Your task to perform on an android device: Do I have any events tomorrow? Image 0: 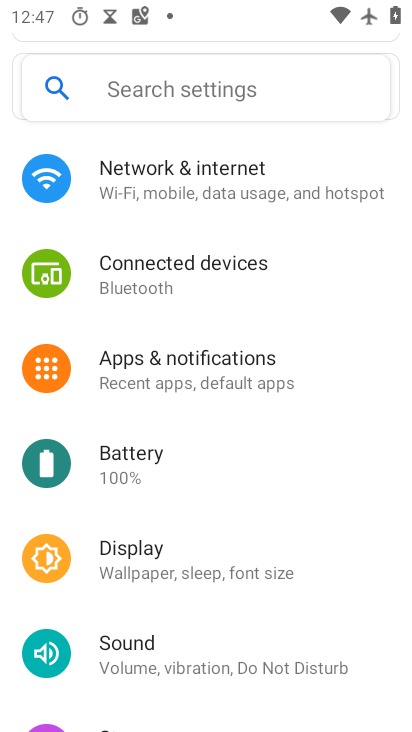
Step 0: press home button
Your task to perform on an android device: Do I have any events tomorrow? Image 1: 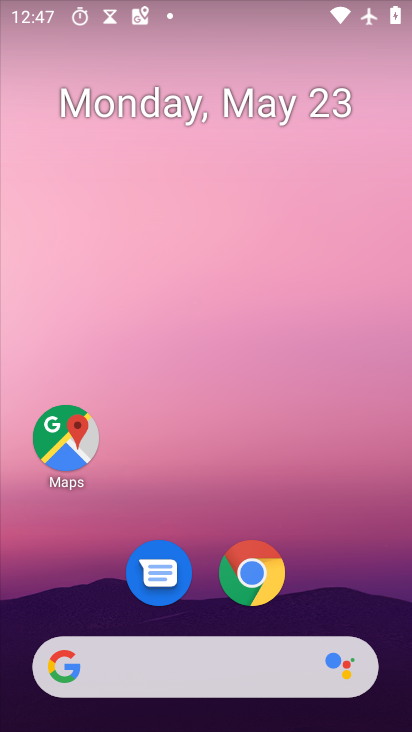
Step 1: drag from (200, 667) to (309, 121)
Your task to perform on an android device: Do I have any events tomorrow? Image 2: 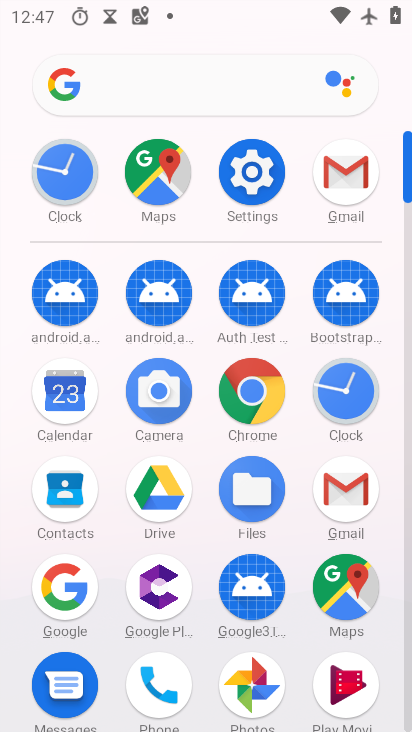
Step 2: click (65, 416)
Your task to perform on an android device: Do I have any events tomorrow? Image 3: 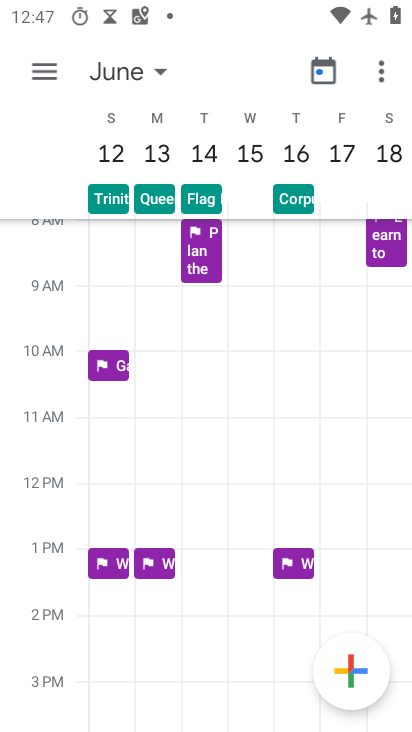
Step 3: click (116, 72)
Your task to perform on an android device: Do I have any events tomorrow? Image 4: 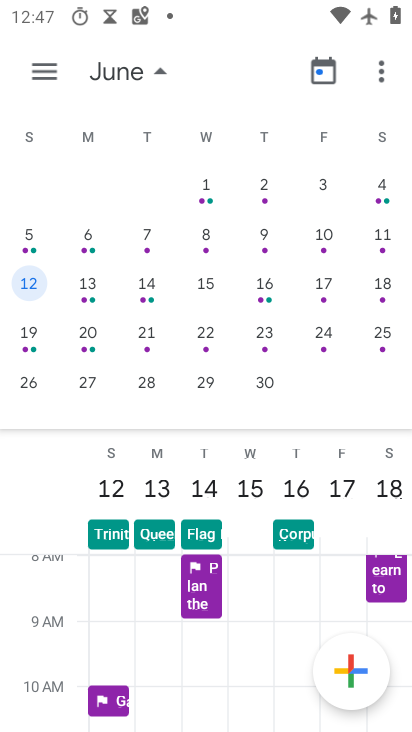
Step 4: drag from (67, 273) to (404, 286)
Your task to perform on an android device: Do I have any events tomorrow? Image 5: 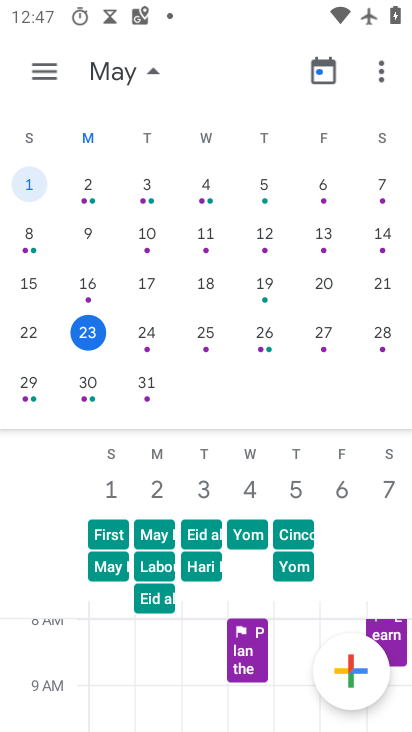
Step 5: click (151, 331)
Your task to perform on an android device: Do I have any events tomorrow? Image 6: 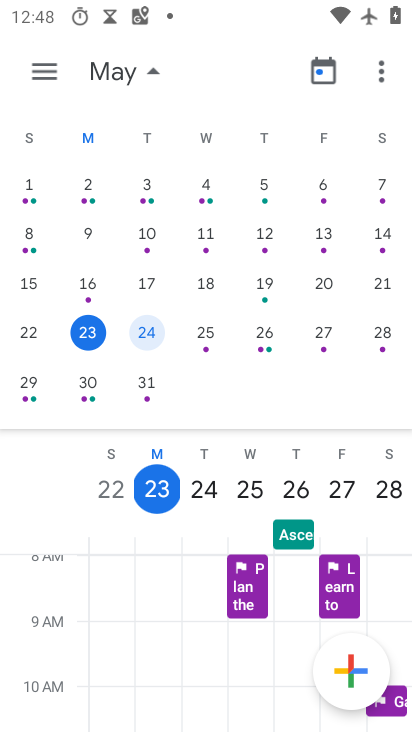
Step 6: click (47, 75)
Your task to perform on an android device: Do I have any events tomorrow? Image 7: 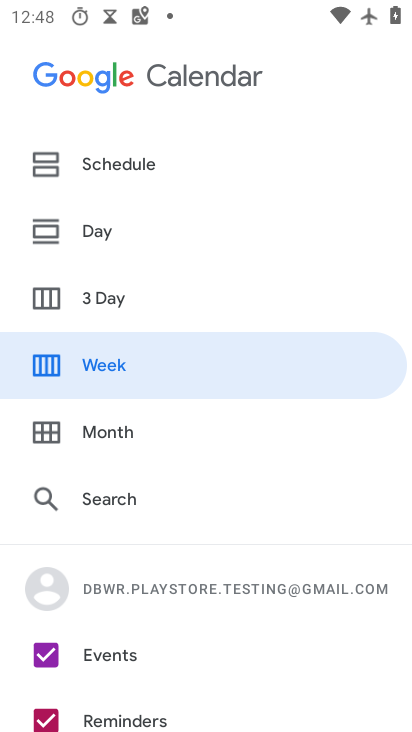
Step 7: click (100, 236)
Your task to perform on an android device: Do I have any events tomorrow? Image 8: 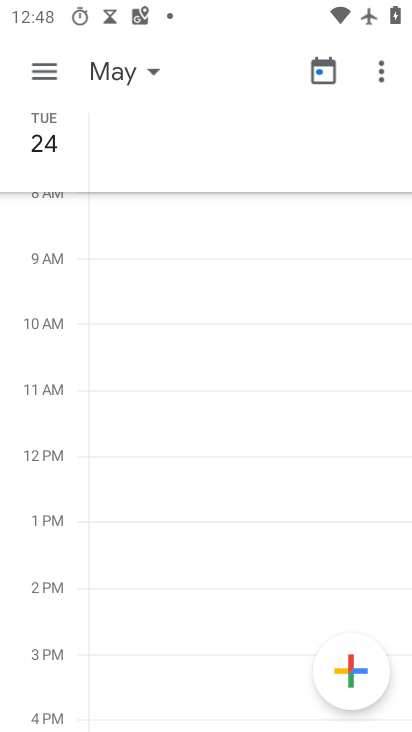
Step 8: click (49, 76)
Your task to perform on an android device: Do I have any events tomorrow? Image 9: 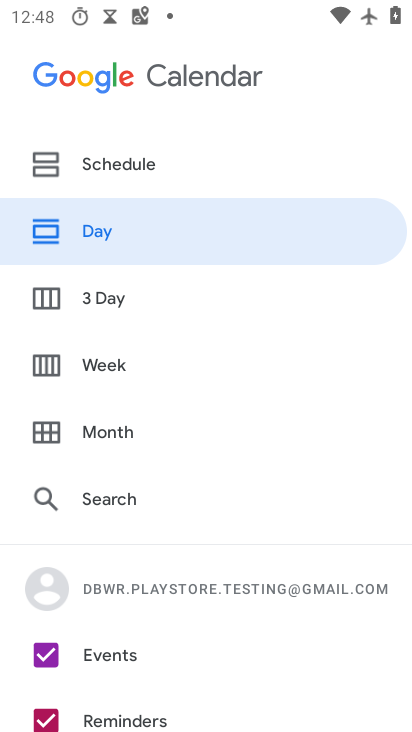
Step 9: click (115, 160)
Your task to perform on an android device: Do I have any events tomorrow? Image 10: 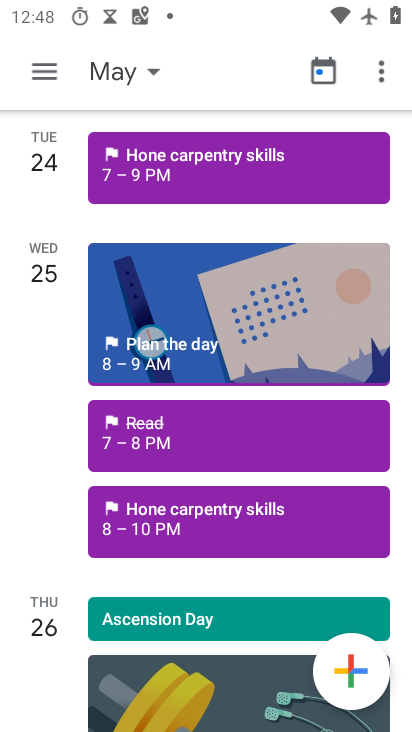
Step 10: click (187, 178)
Your task to perform on an android device: Do I have any events tomorrow? Image 11: 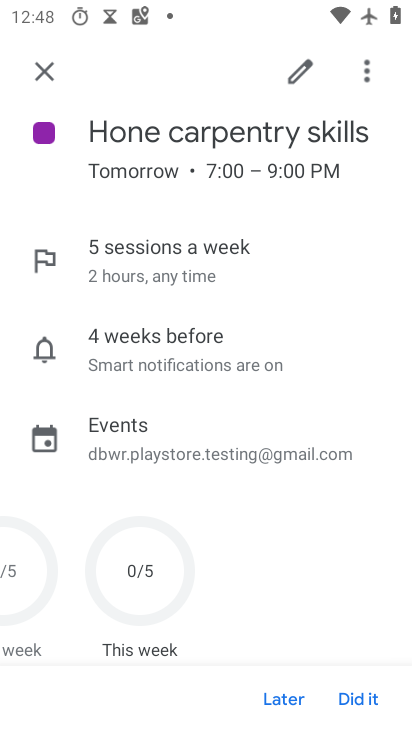
Step 11: task complete